Your task to perform on an android device: Clear the shopping cart on target.com. Search for "duracell triple a" on target.com, select the first entry, add it to the cart, then select checkout. Image 0: 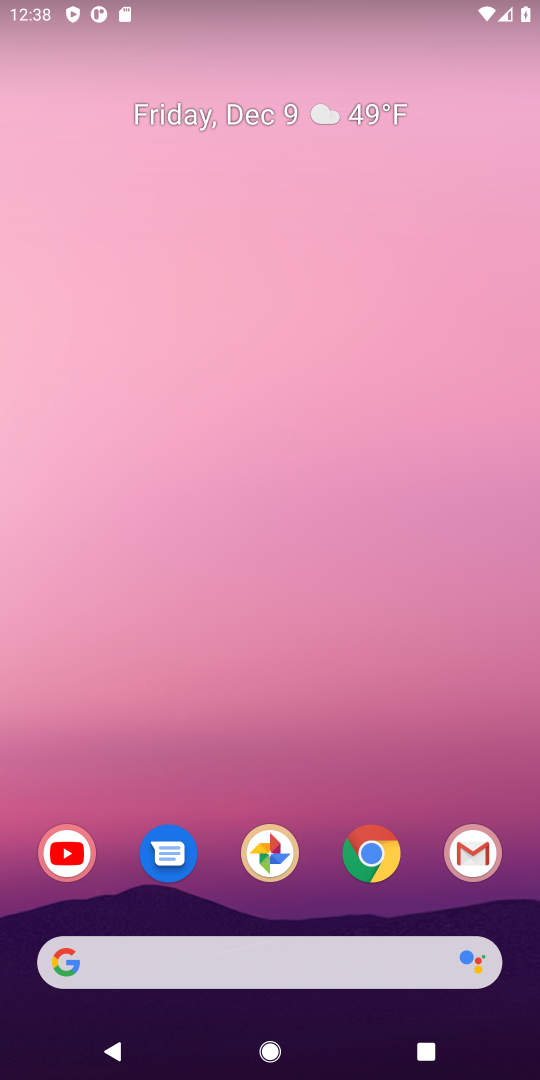
Step 0: drag from (281, 941) to (212, 249)
Your task to perform on an android device: Clear the shopping cart on target.com. Search for "duracell triple a" on target.com, select the first entry, add it to the cart, then select checkout. Image 1: 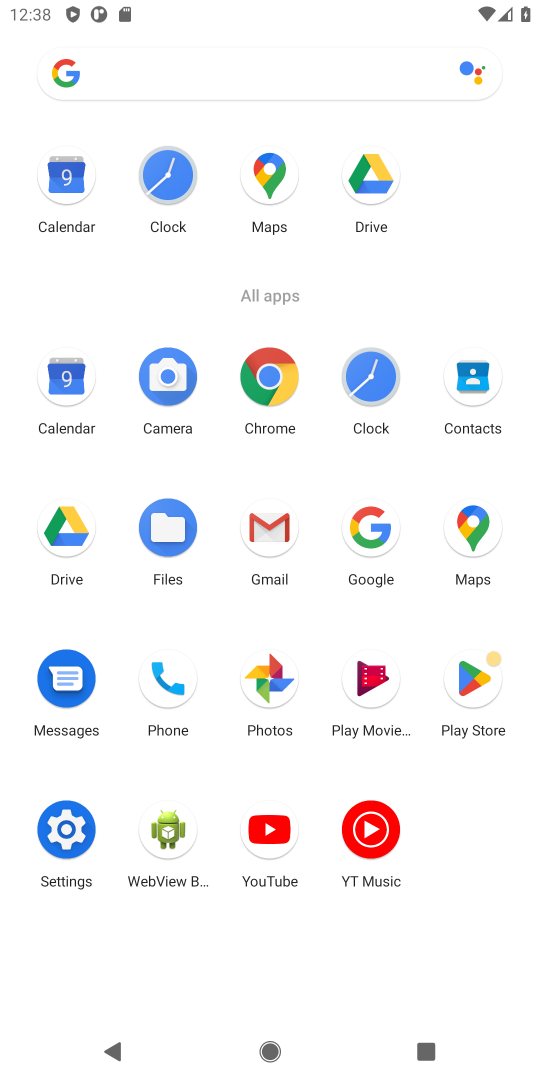
Step 1: click (364, 528)
Your task to perform on an android device: Clear the shopping cart on target.com. Search for "duracell triple a" on target.com, select the first entry, add it to the cart, then select checkout. Image 2: 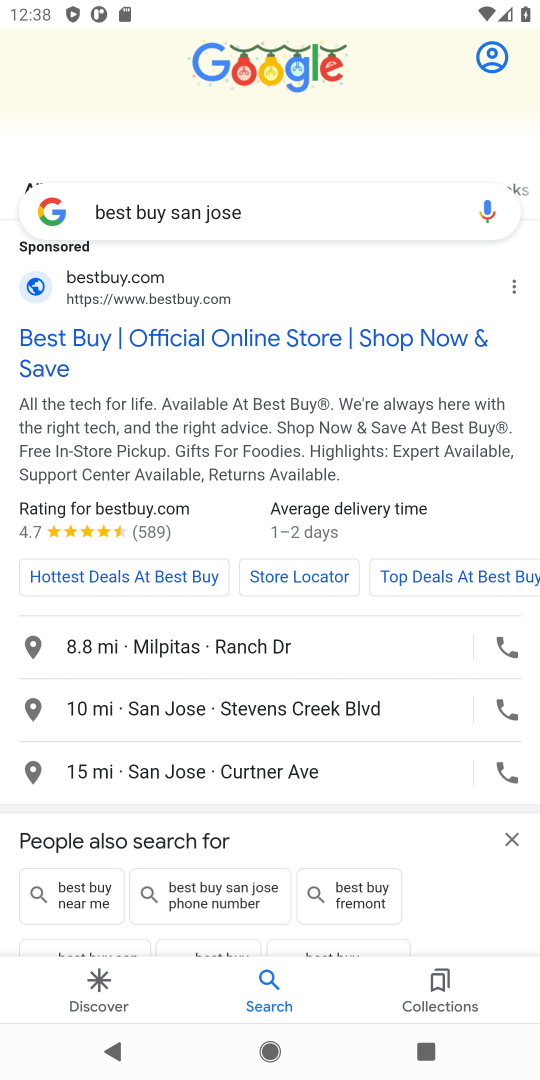
Step 2: click (165, 208)
Your task to perform on an android device: Clear the shopping cart on target.com. Search for "duracell triple a" on target.com, select the first entry, add it to the cart, then select checkout. Image 3: 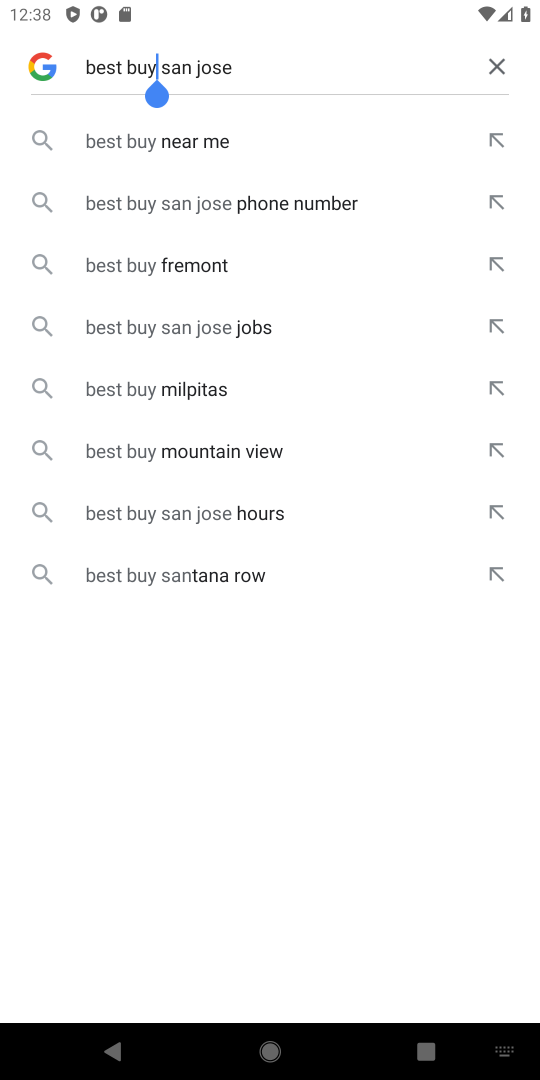
Step 3: click (497, 64)
Your task to perform on an android device: Clear the shopping cart on target.com. Search for "duracell triple a" on target.com, select the first entry, add it to the cart, then select checkout. Image 4: 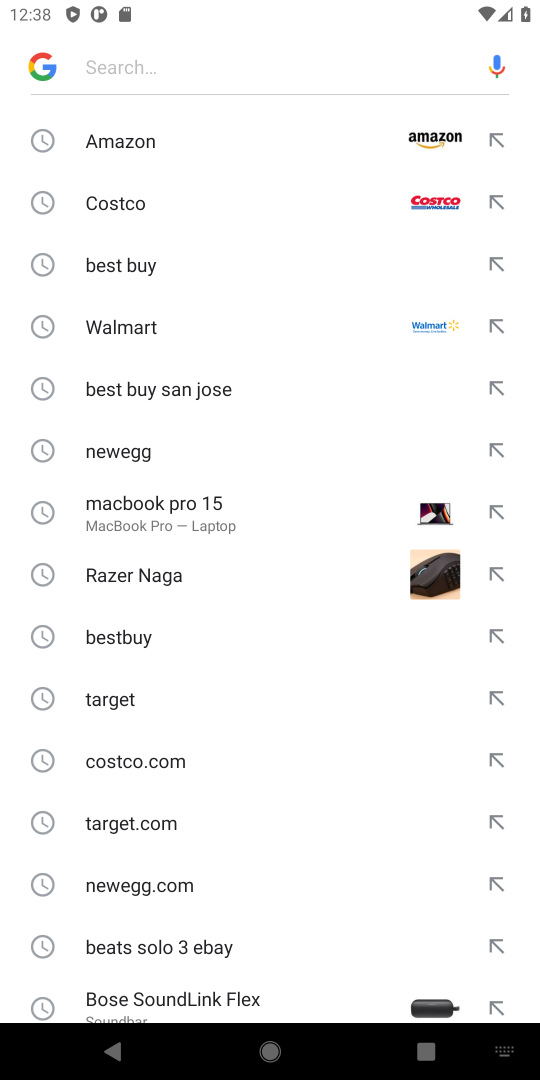
Step 4: click (116, 704)
Your task to perform on an android device: Clear the shopping cart on target.com. Search for "duracell triple a" on target.com, select the first entry, add it to the cart, then select checkout. Image 5: 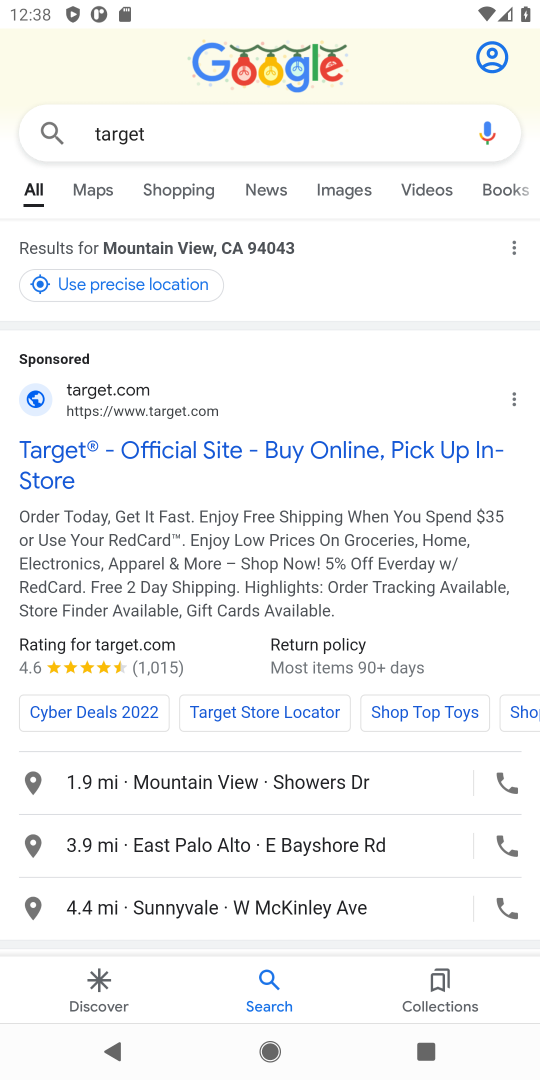
Step 5: click (41, 462)
Your task to perform on an android device: Clear the shopping cart on target.com. Search for "duracell triple a" on target.com, select the first entry, add it to the cart, then select checkout. Image 6: 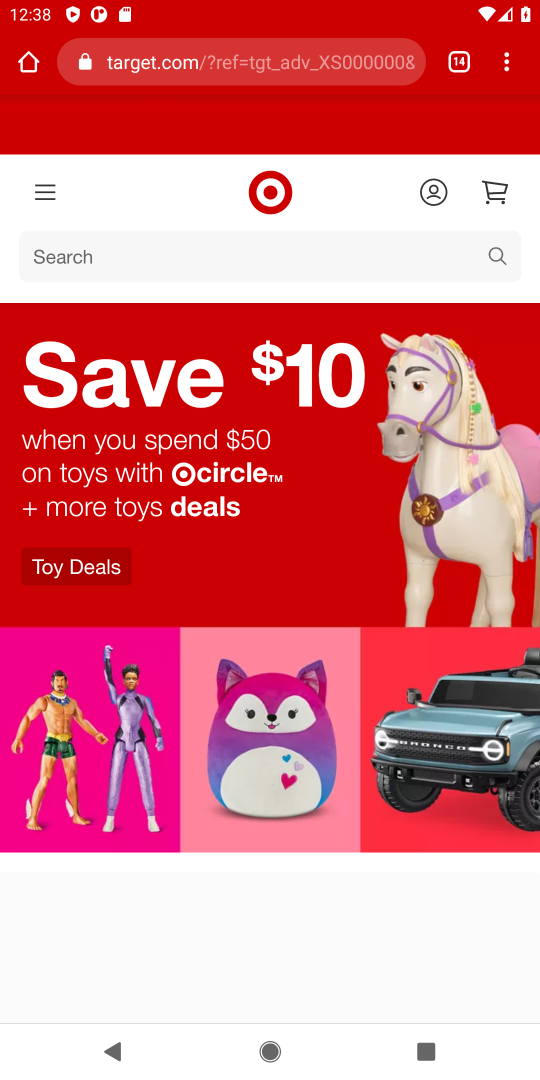
Step 6: click (492, 187)
Your task to perform on an android device: Clear the shopping cart on target.com. Search for "duracell triple a" on target.com, select the first entry, add it to the cart, then select checkout. Image 7: 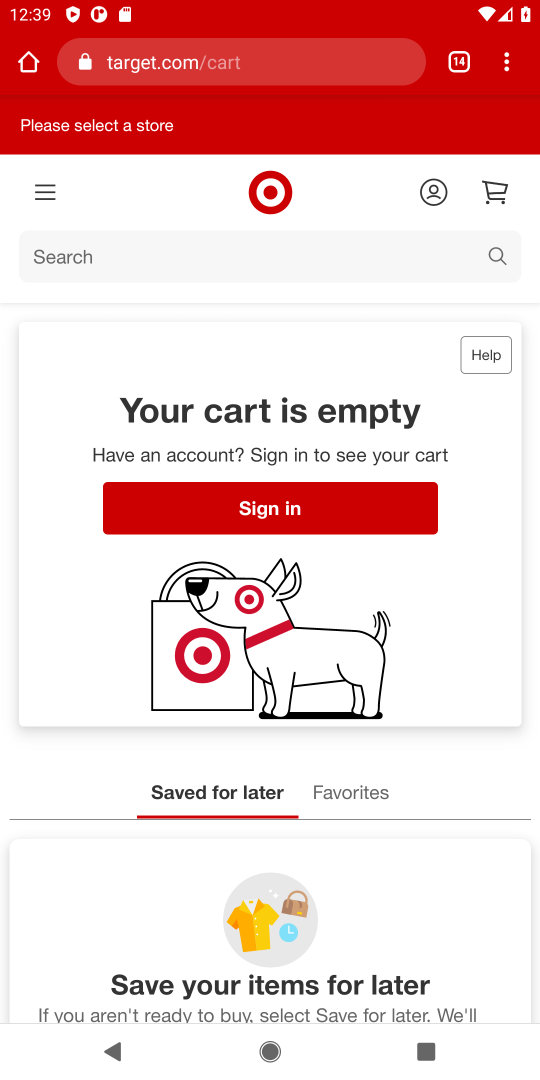
Step 7: click (111, 241)
Your task to perform on an android device: Clear the shopping cart on target.com. Search for "duracell triple a" on target.com, select the first entry, add it to the cart, then select checkout. Image 8: 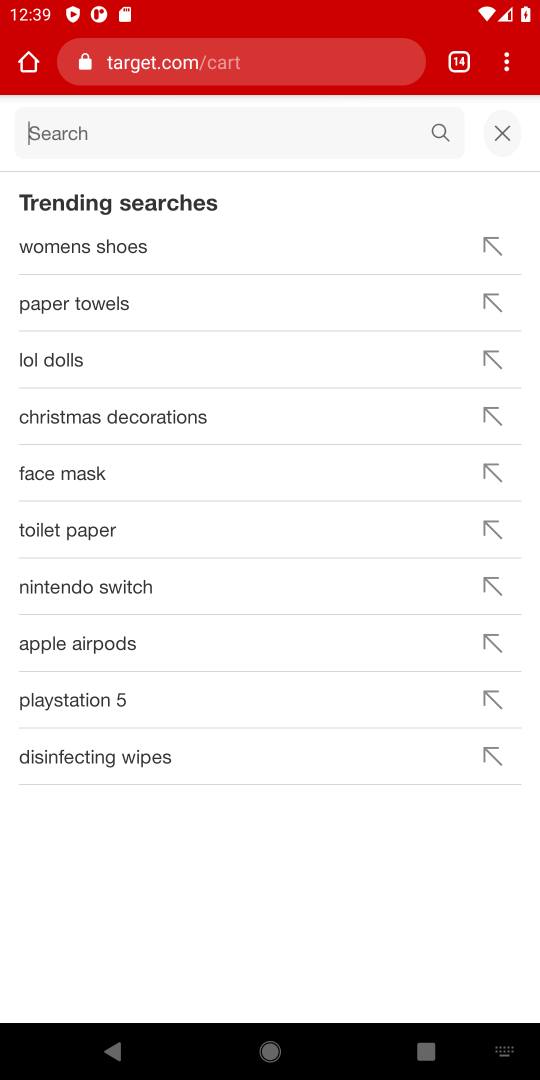
Step 8: type "duracell triple a"
Your task to perform on an android device: Clear the shopping cart on target.com. Search for "duracell triple a" on target.com, select the first entry, add it to the cart, then select checkout. Image 9: 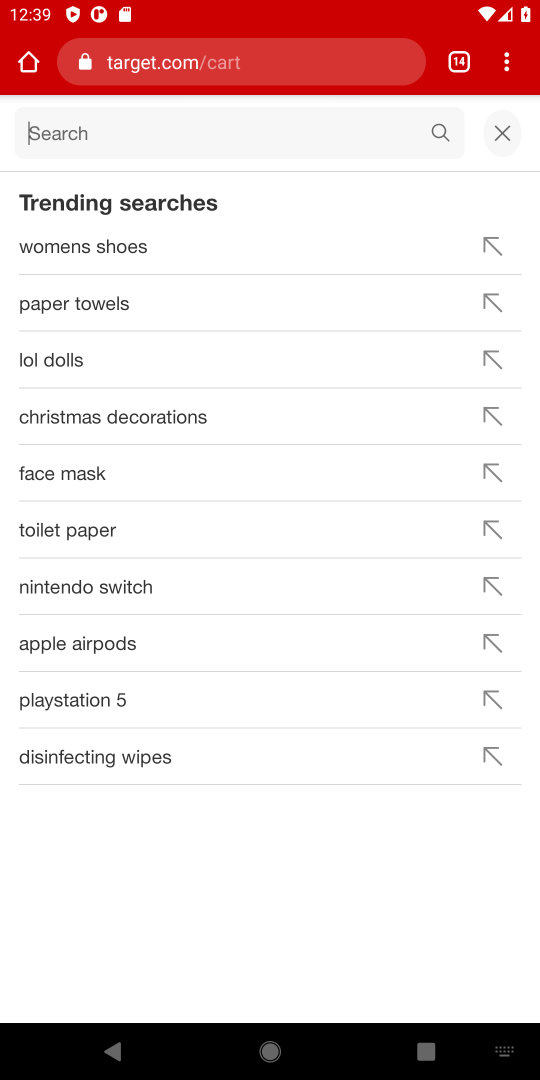
Step 9: click (438, 128)
Your task to perform on an android device: Clear the shopping cart on target.com. Search for "duracell triple a" on target.com, select the first entry, add it to the cart, then select checkout. Image 10: 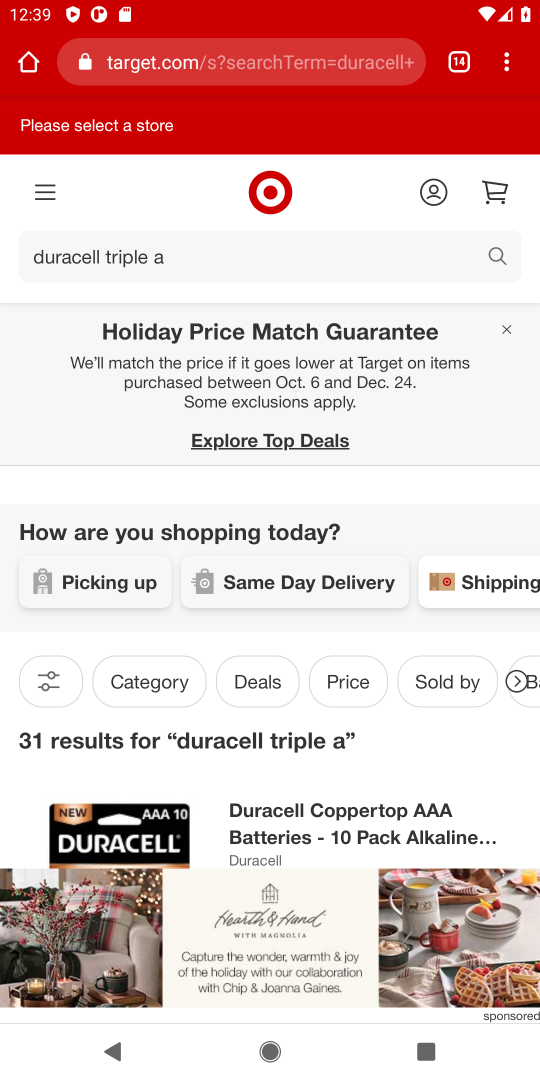
Step 10: drag from (301, 748) to (317, 324)
Your task to perform on an android device: Clear the shopping cart on target.com. Search for "duracell triple a" on target.com, select the first entry, add it to the cart, then select checkout. Image 11: 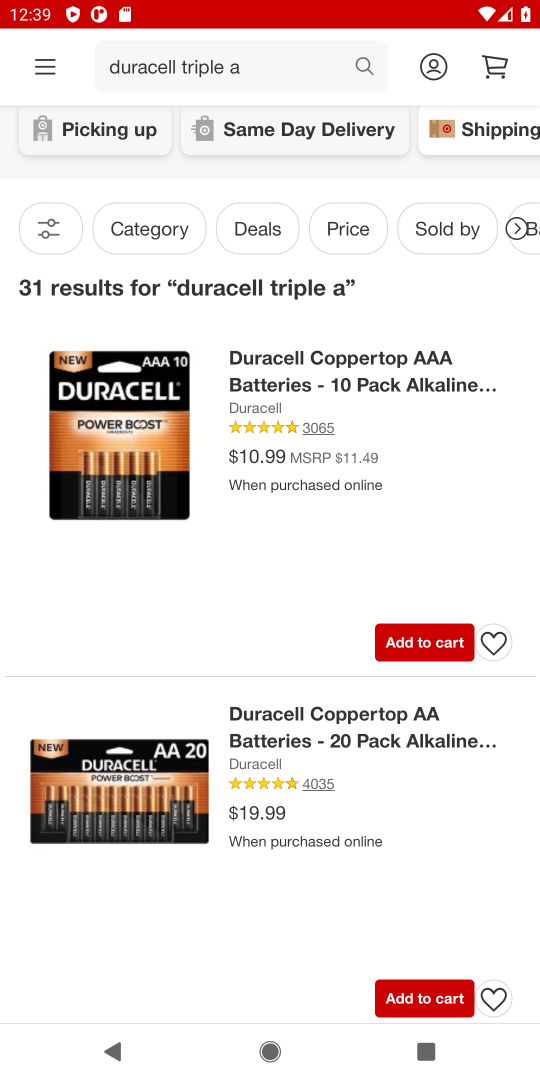
Step 11: click (444, 642)
Your task to perform on an android device: Clear the shopping cart on target.com. Search for "duracell triple a" on target.com, select the first entry, add it to the cart, then select checkout. Image 12: 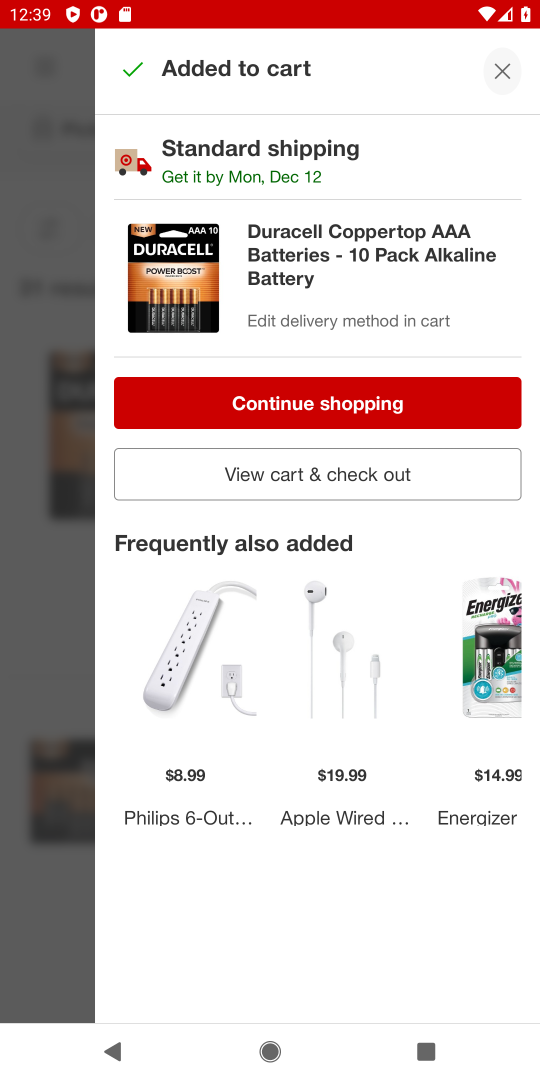
Step 12: click (506, 71)
Your task to perform on an android device: Clear the shopping cart on target.com. Search for "duracell triple a" on target.com, select the first entry, add it to the cart, then select checkout. Image 13: 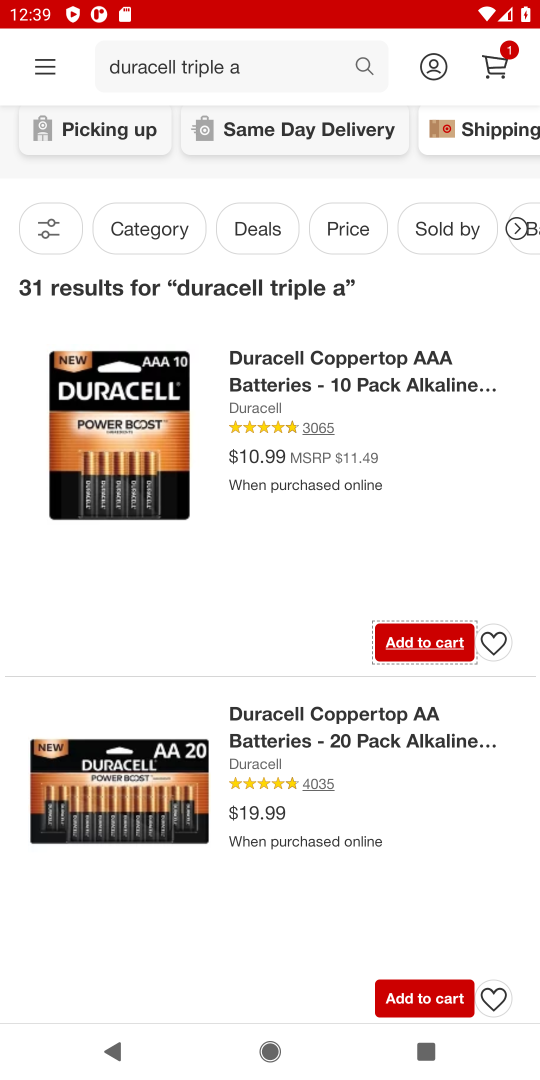
Step 13: click (500, 62)
Your task to perform on an android device: Clear the shopping cart on target.com. Search for "duracell triple a" on target.com, select the first entry, add it to the cart, then select checkout. Image 14: 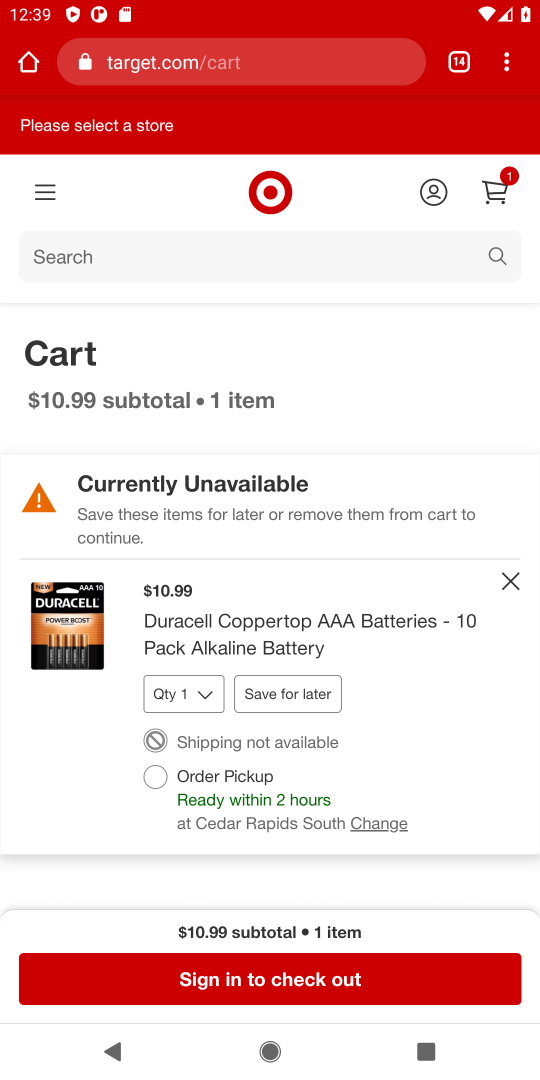
Step 14: click (307, 989)
Your task to perform on an android device: Clear the shopping cart on target.com. Search for "duracell triple a" on target.com, select the first entry, add it to the cart, then select checkout. Image 15: 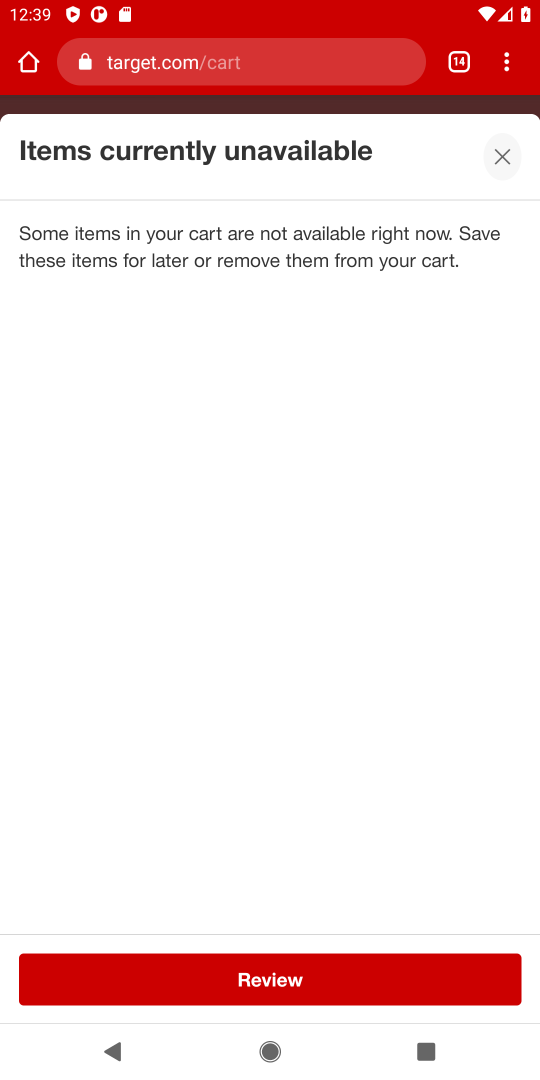
Step 15: task complete